Your task to perform on an android device: toggle improve location accuracy Image 0: 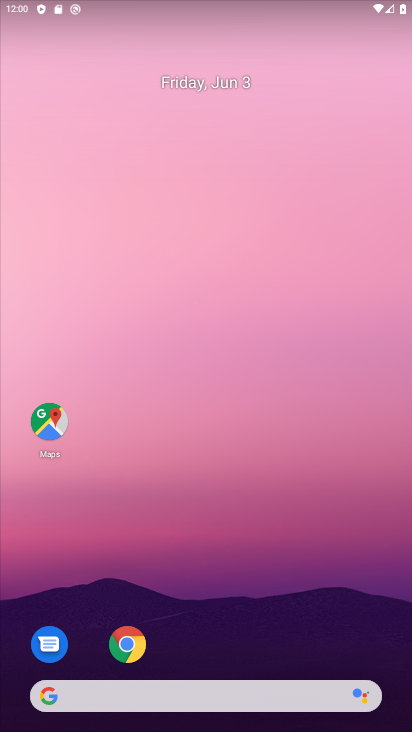
Step 0: drag from (205, 725) to (221, 10)
Your task to perform on an android device: toggle improve location accuracy Image 1: 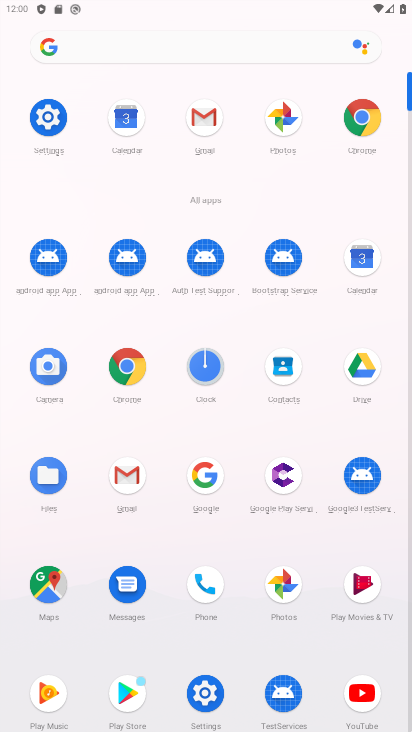
Step 1: click (204, 691)
Your task to perform on an android device: toggle improve location accuracy Image 2: 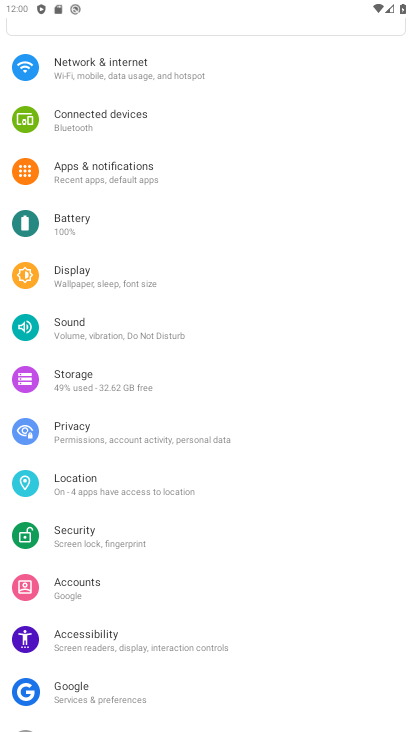
Step 2: click (91, 485)
Your task to perform on an android device: toggle improve location accuracy Image 3: 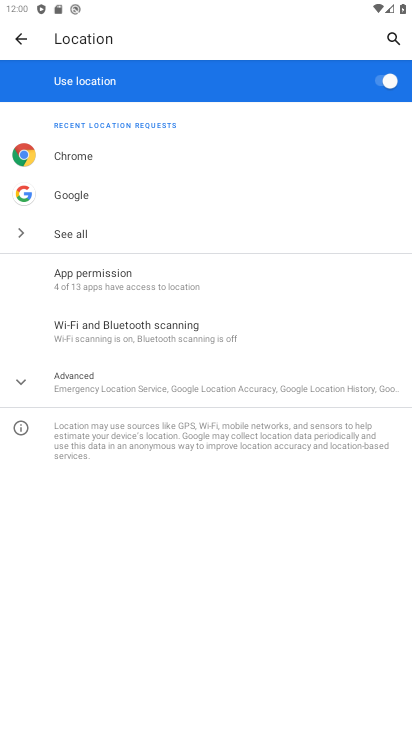
Step 3: click (103, 380)
Your task to perform on an android device: toggle improve location accuracy Image 4: 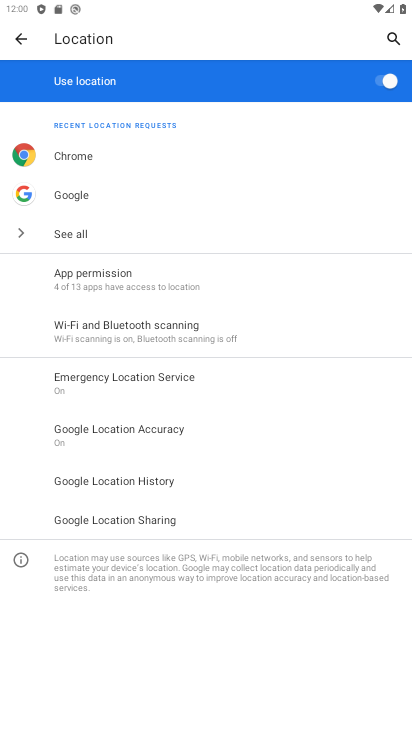
Step 4: click (129, 427)
Your task to perform on an android device: toggle improve location accuracy Image 5: 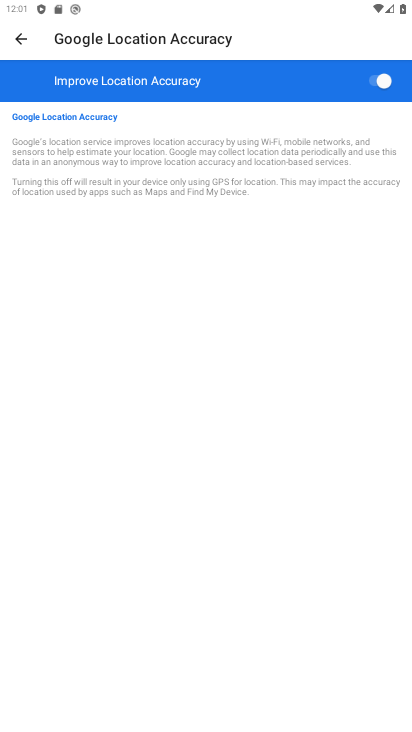
Step 5: task complete